Your task to perform on an android device: Go to Google maps Image 0: 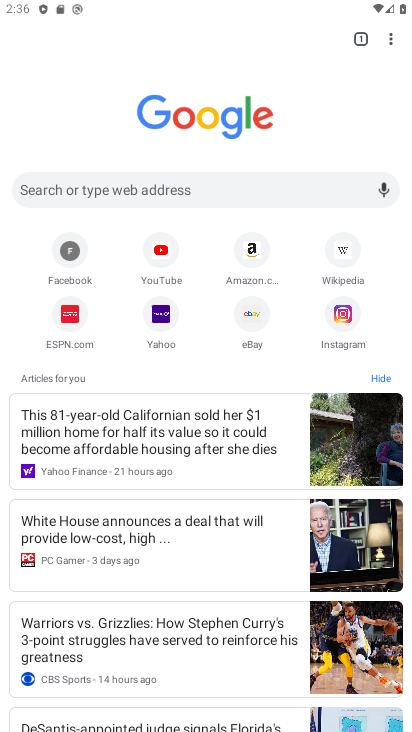
Step 0: press back button
Your task to perform on an android device: Go to Google maps Image 1: 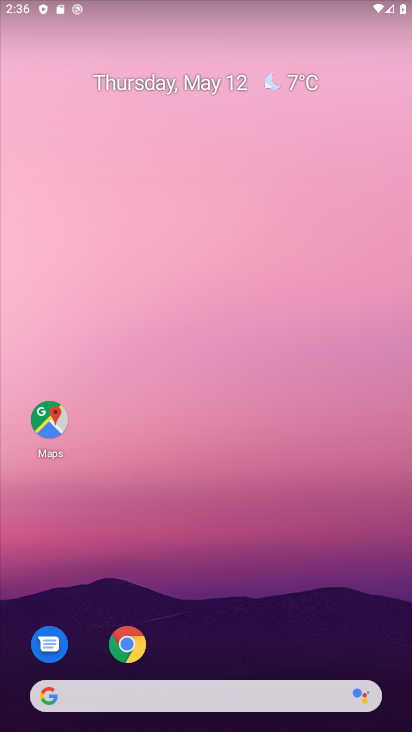
Step 1: click (49, 416)
Your task to perform on an android device: Go to Google maps Image 2: 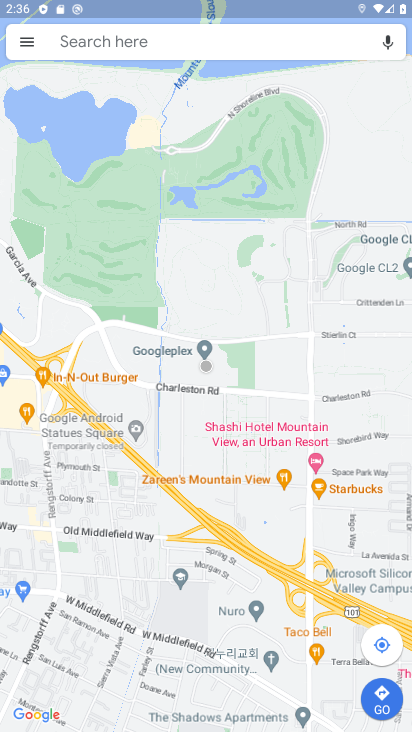
Step 2: task complete